Your task to perform on an android device: snooze an email in the gmail app Image 0: 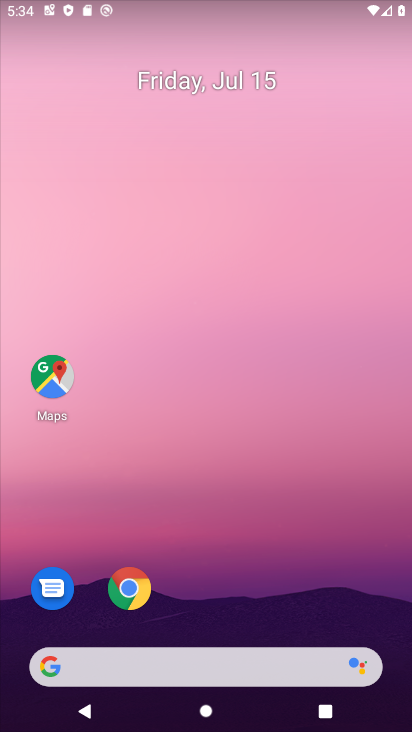
Step 0: drag from (322, 648) to (406, 630)
Your task to perform on an android device: snooze an email in the gmail app Image 1: 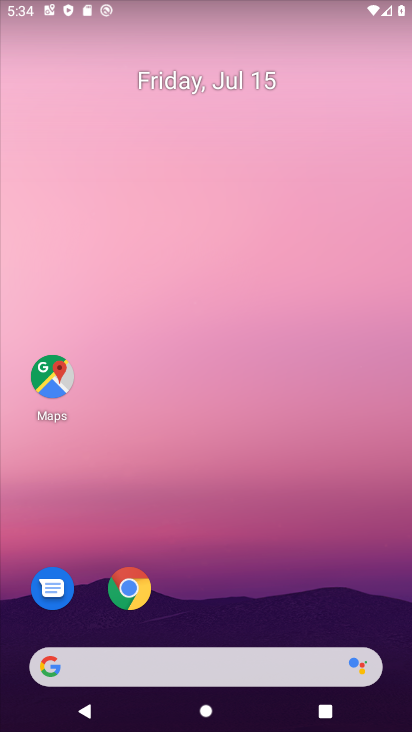
Step 1: click (135, 444)
Your task to perform on an android device: snooze an email in the gmail app Image 2: 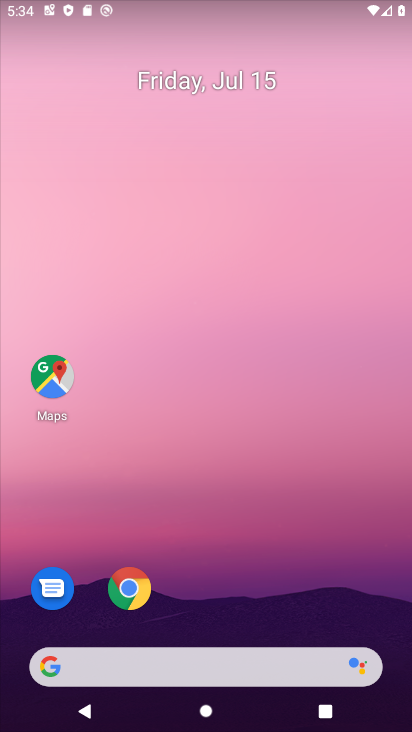
Step 2: drag from (237, 638) to (309, 4)
Your task to perform on an android device: snooze an email in the gmail app Image 3: 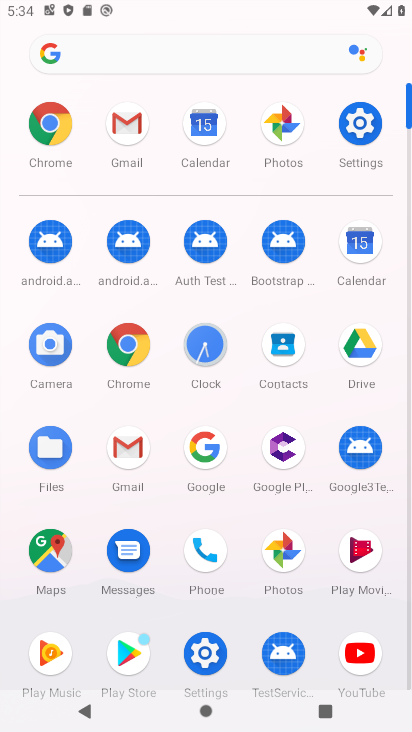
Step 3: click (138, 455)
Your task to perform on an android device: snooze an email in the gmail app Image 4: 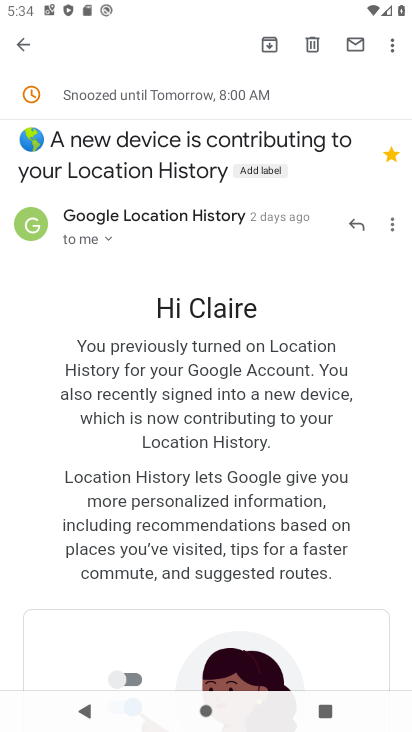
Step 4: press back button
Your task to perform on an android device: snooze an email in the gmail app Image 5: 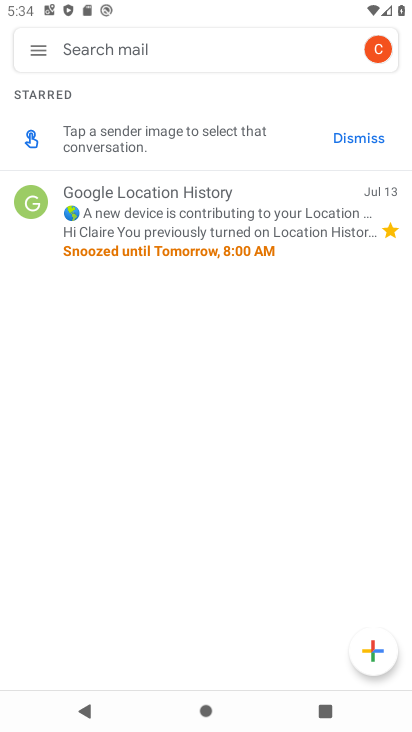
Step 5: click (39, 47)
Your task to perform on an android device: snooze an email in the gmail app Image 6: 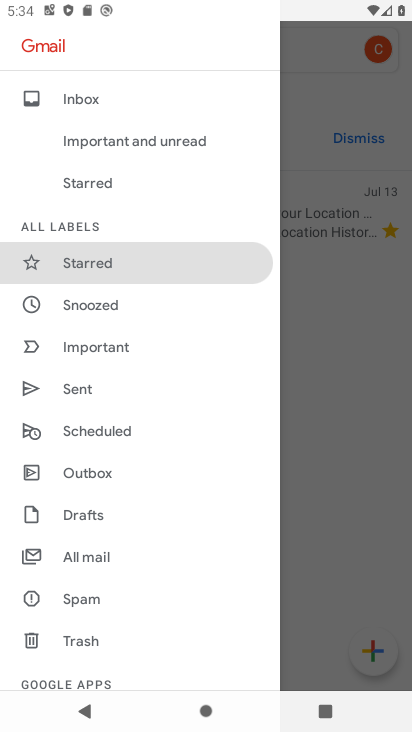
Step 6: click (116, 307)
Your task to perform on an android device: snooze an email in the gmail app Image 7: 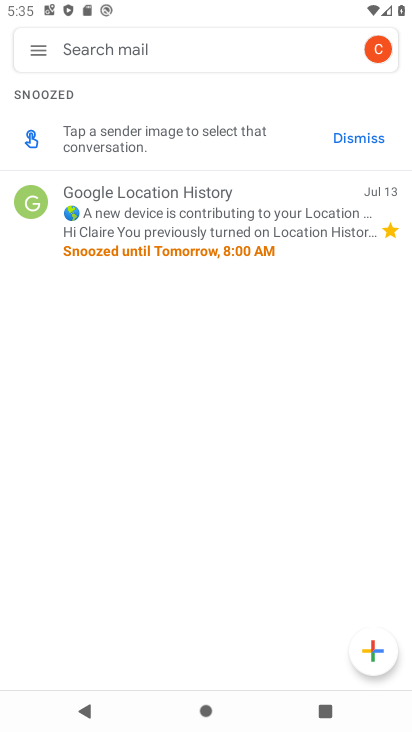
Step 7: task complete